Your task to perform on an android device: What's on my calendar tomorrow? Image 0: 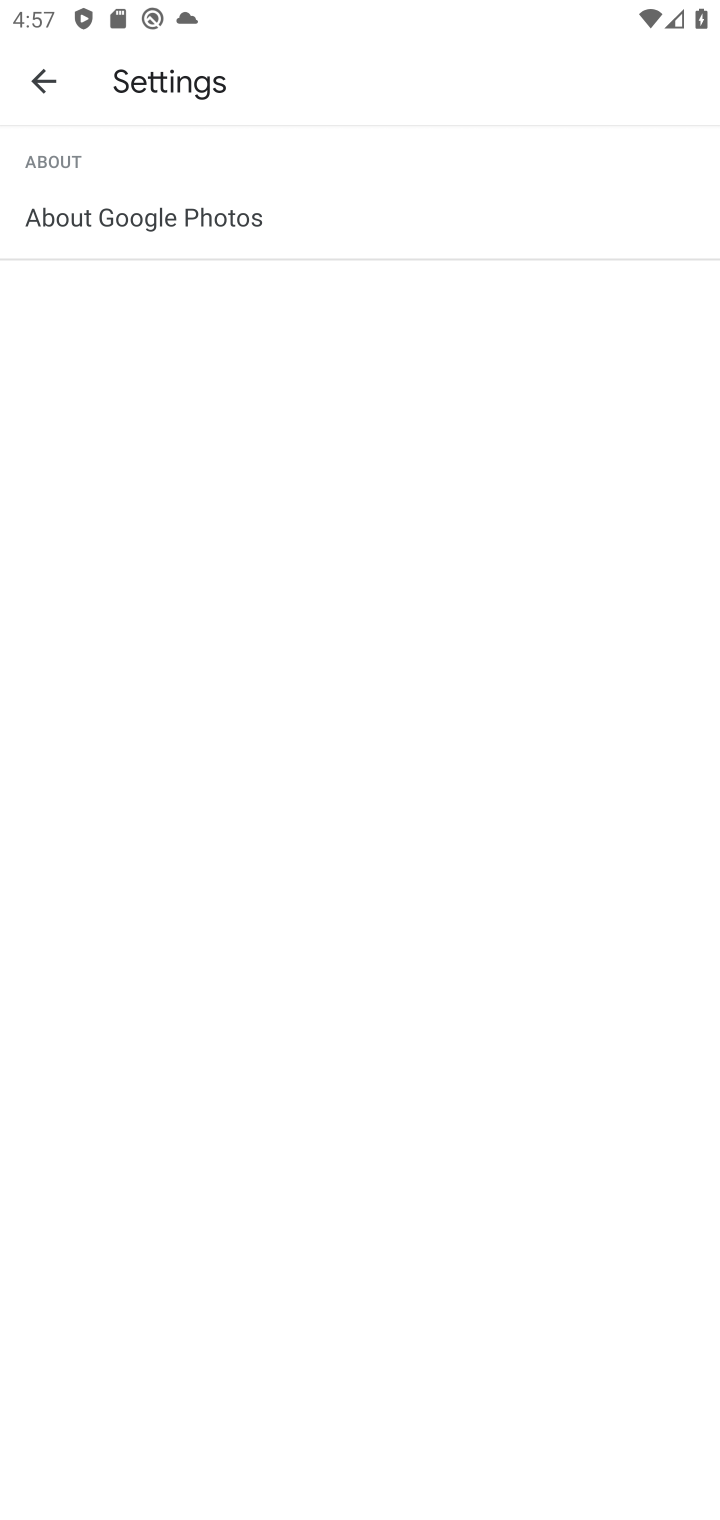
Step 0: press back button
Your task to perform on an android device: What's on my calendar tomorrow? Image 1: 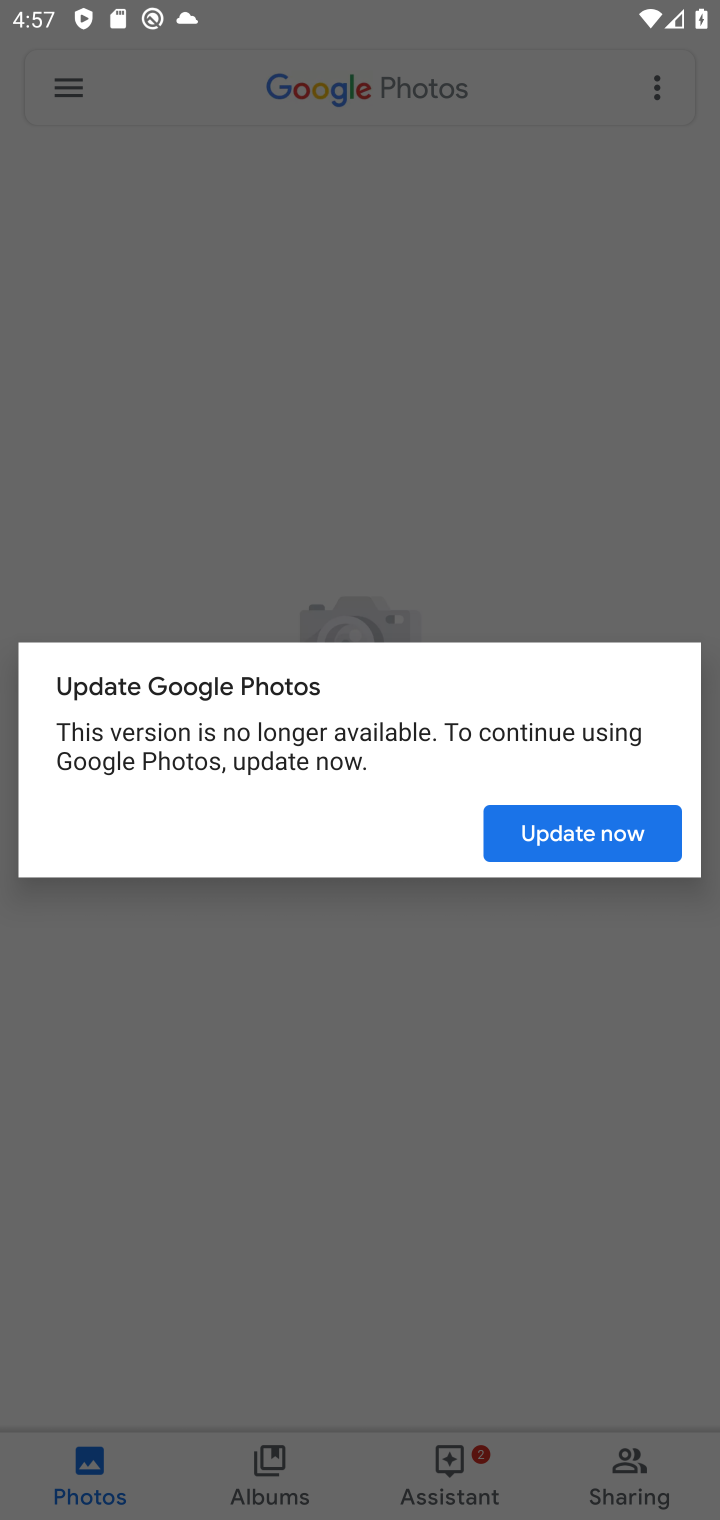
Step 1: press home button
Your task to perform on an android device: What's on my calendar tomorrow? Image 2: 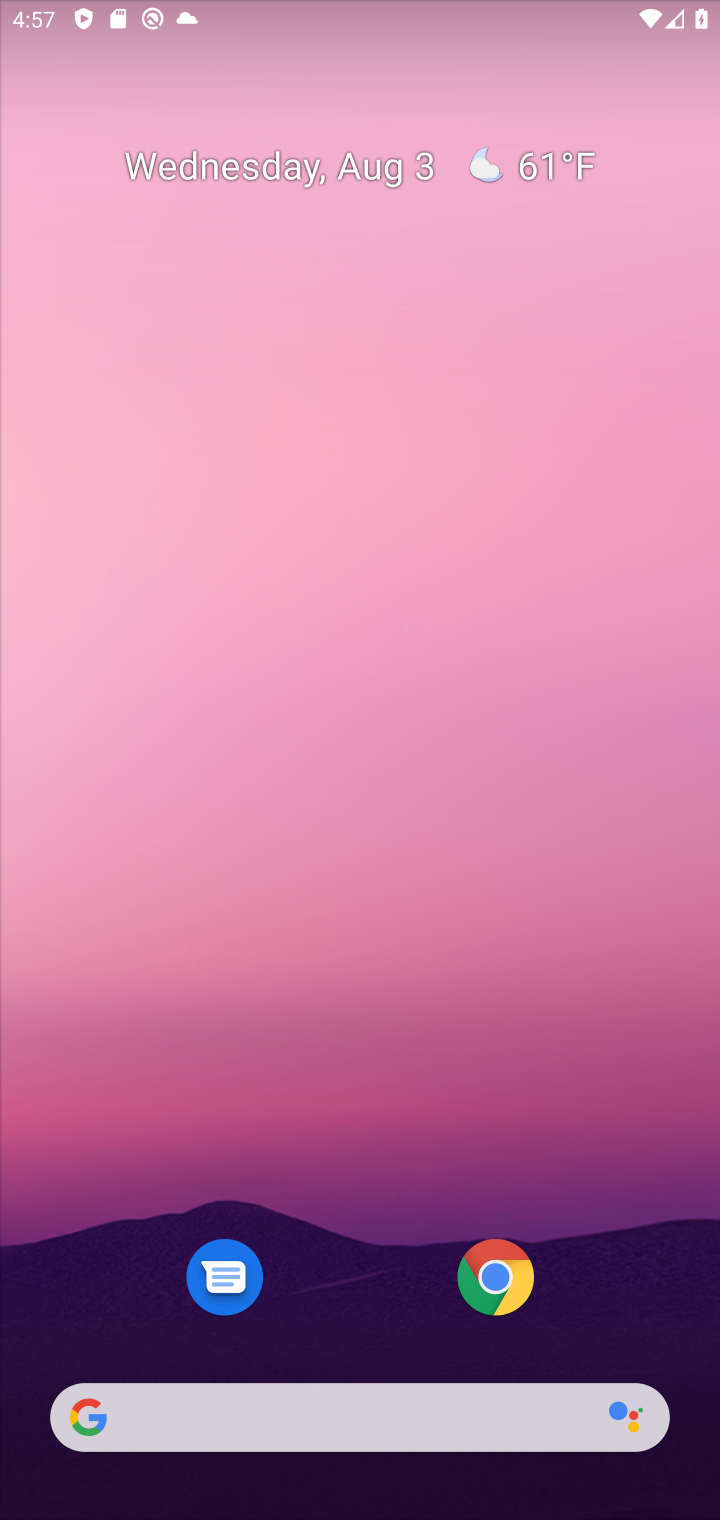
Step 2: drag from (321, 835) to (529, 61)
Your task to perform on an android device: What's on my calendar tomorrow? Image 3: 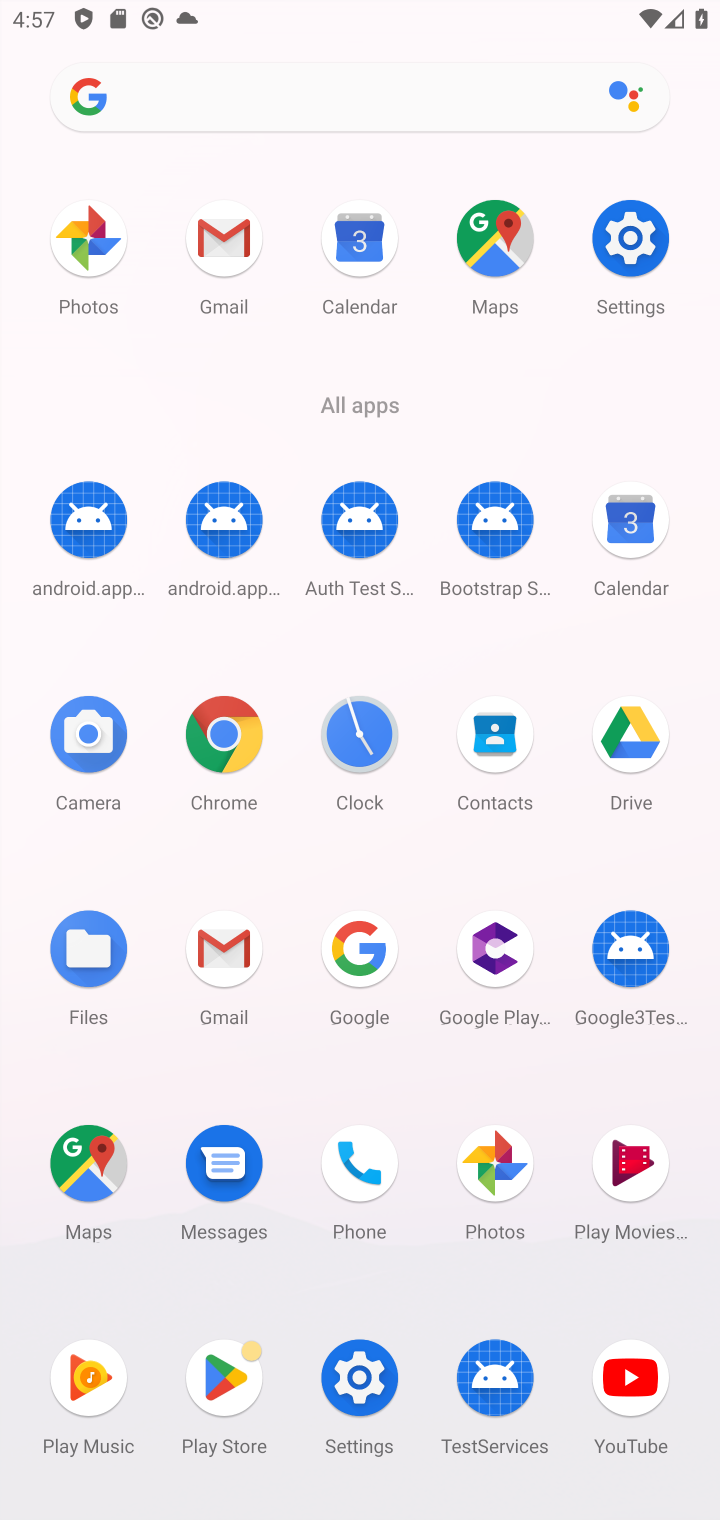
Step 3: click (636, 557)
Your task to perform on an android device: What's on my calendar tomorrow? Image 4: 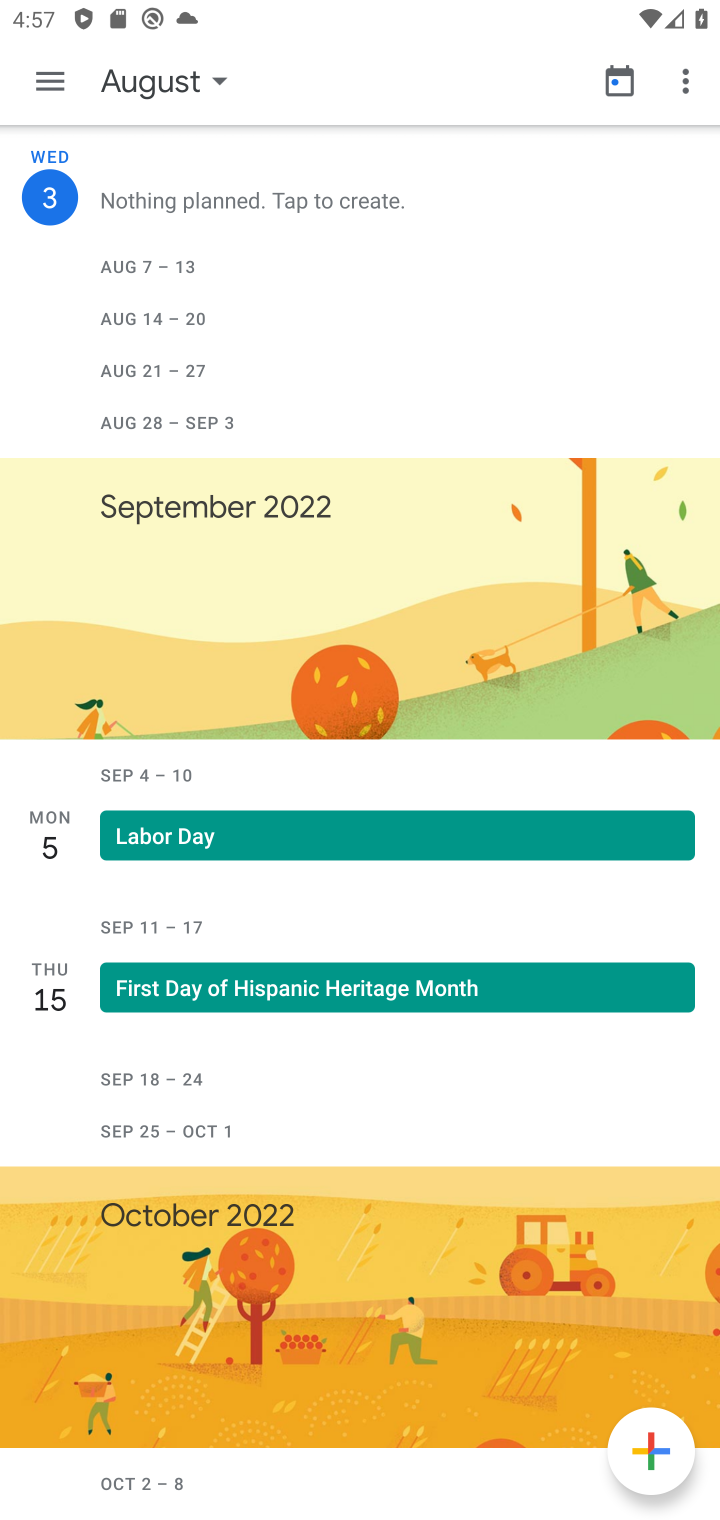
Step 4: click (209, 77)
Your task to perform on an android device: What's on my calendar tomorrow? Image 5: 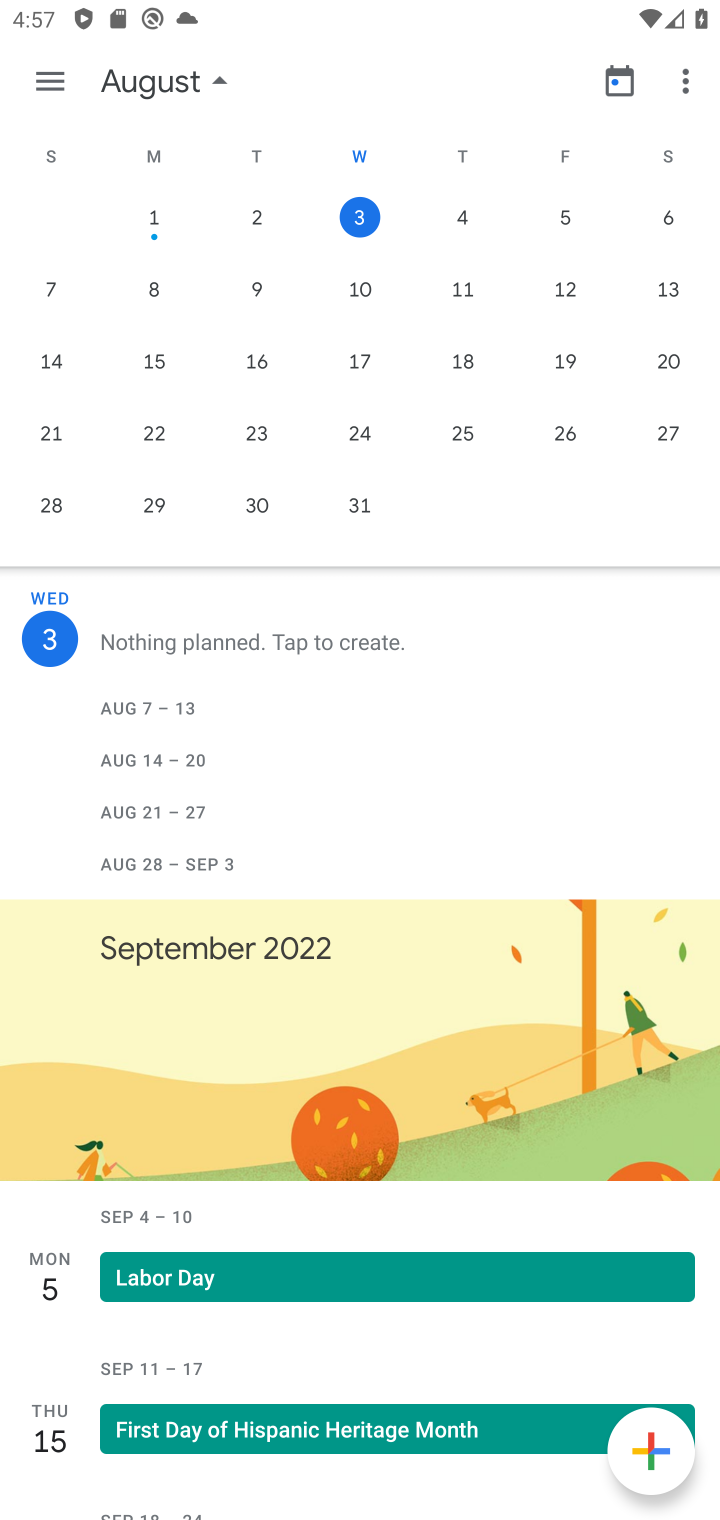
Step 5: click (454, 216)
Your task to perform on an android device: What's on my calendar tomorrow? Image 6: 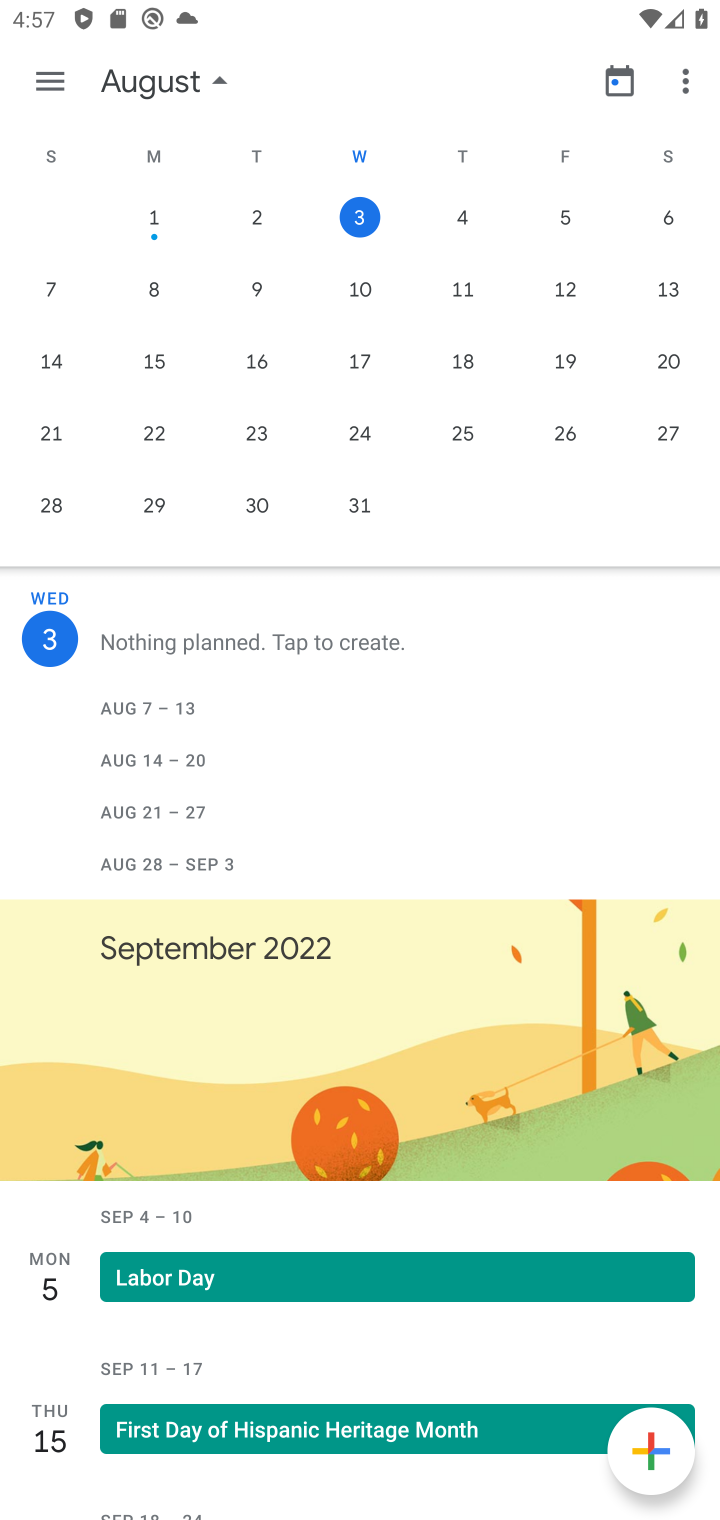
Step 6: click (466, 211)
Your task to perform on an android device: What's on my calendar tomorrow? Image 7: 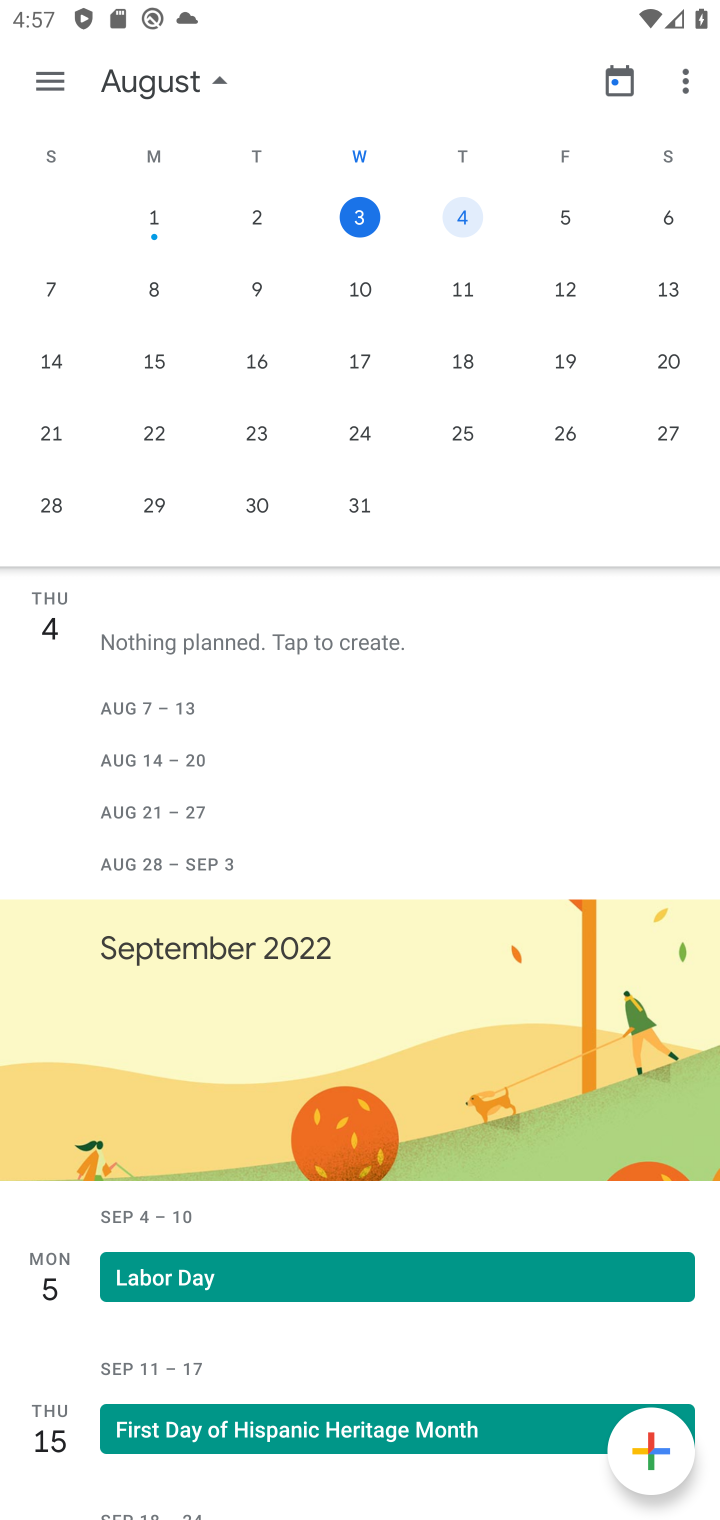
Step 7: click (466, 219)
Your task to perform on an android device: What's on my calendar tomorrow? Image 8: 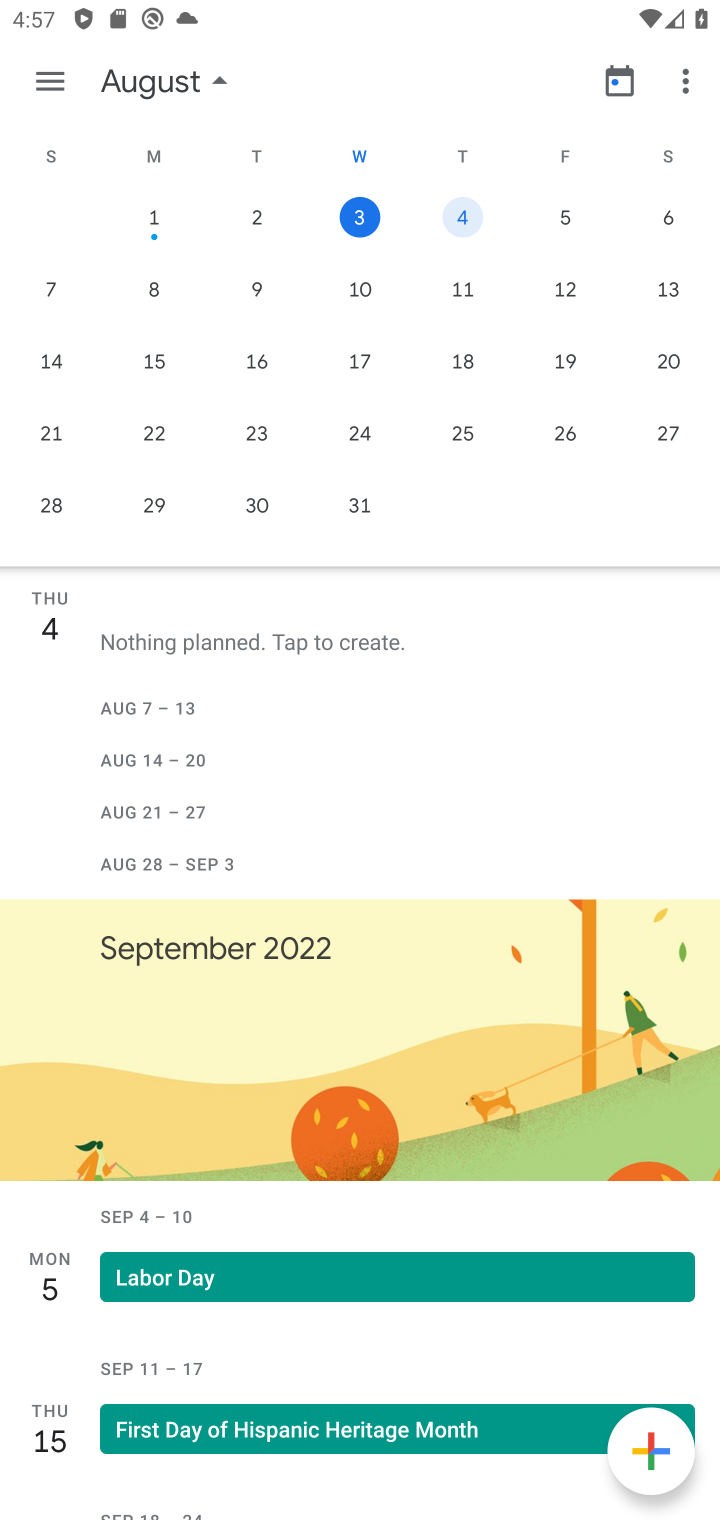
Step 8: task complete